Your task to perform on an android device: turn on the 12-hour format for clock Image 0: 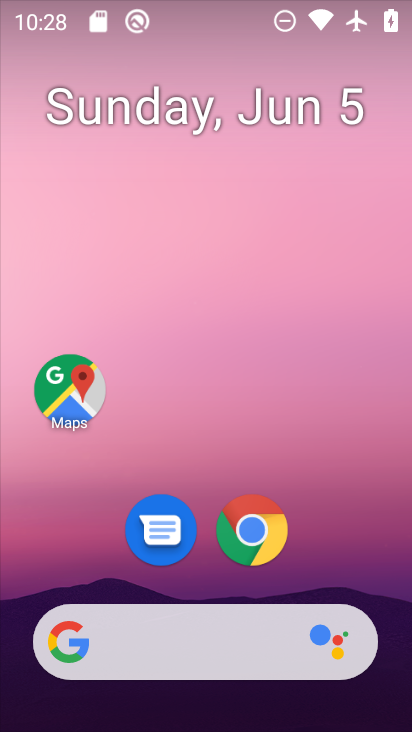
Step 0: drag from (401, 638) to (298, 34)
Your task to perform on an android device: turn on the 12-hour format for clock Image 1: 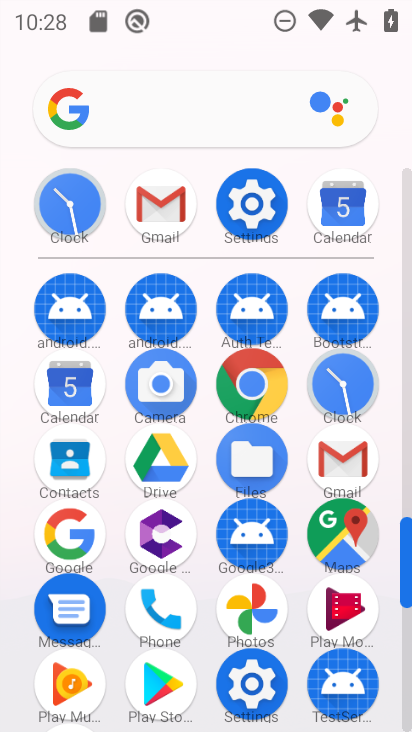
Step 1: click (343, 385)
Your task to perform on an android device: turn on the 12-hour format for clock Image 2: 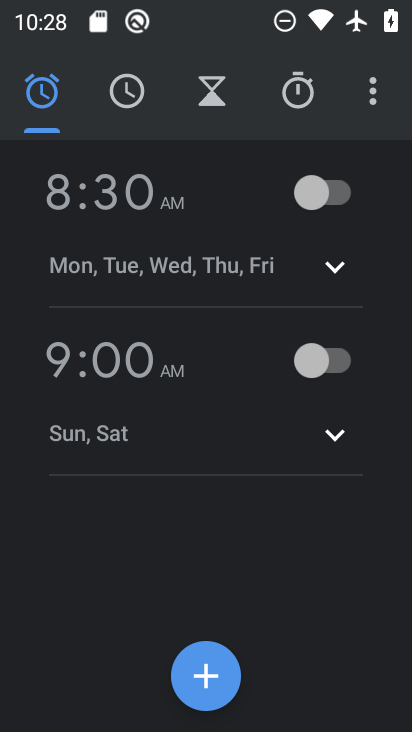
Step 2: click (373, 102)
Your task to perform on an android device: turn on the 12-hour format for clock Image 3: 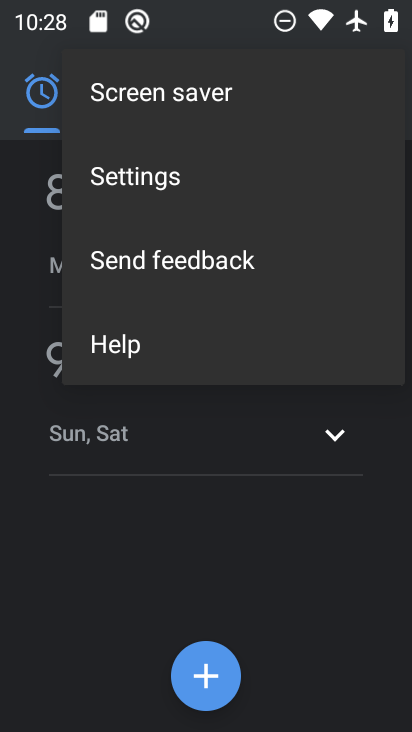
Step 3: click (140, 174)
Your task to perform on an android device: turn on the 12-hour format for clock Image 4: 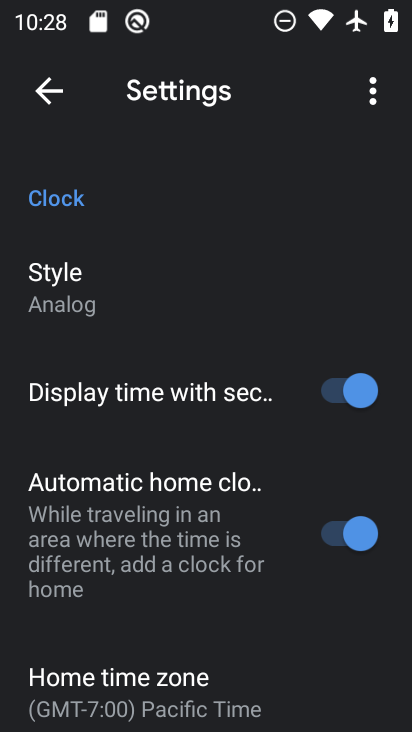
Step 4: drag from (284, 621) to (229, 197)
Your task to perform on an android device: turn on the 12-hour format for clock Image 5: 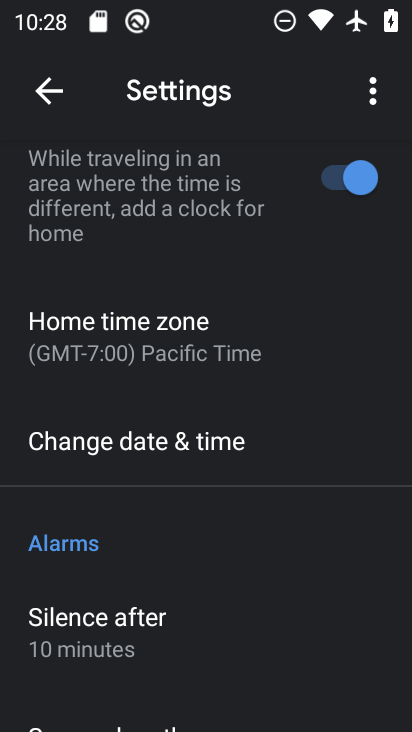
Step 5: click (209, 455)
Your task to perform on an android device: turn on the 12-hour format for clock Image 6: 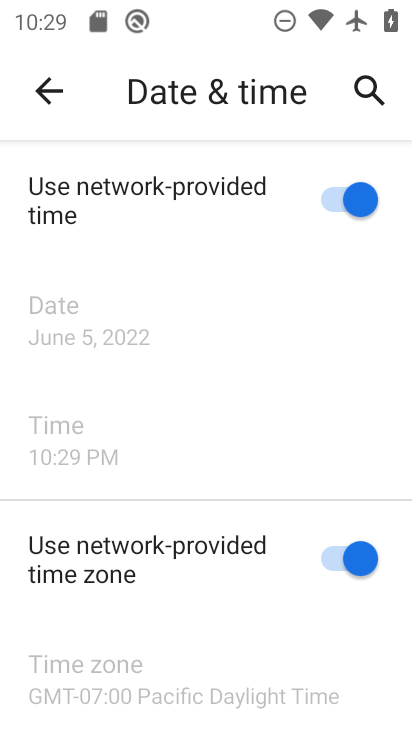
Step 6: task complete